Your task to perform on an android device: Check the weather Image 0: 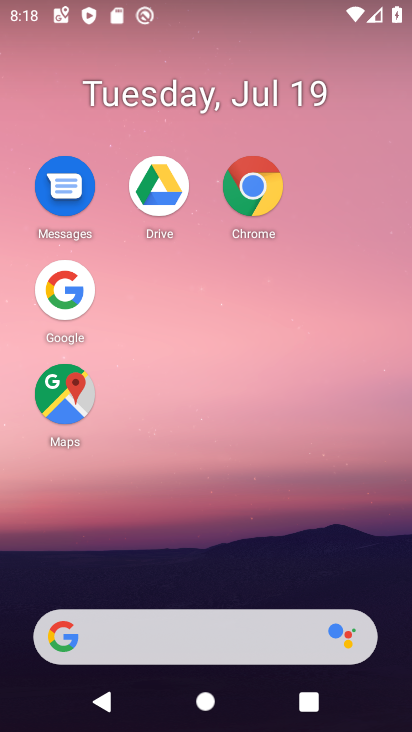
Step 0: drag from (216, 556) to (188, 73)
Your task to perform on an android device: Check the weather Image 1: 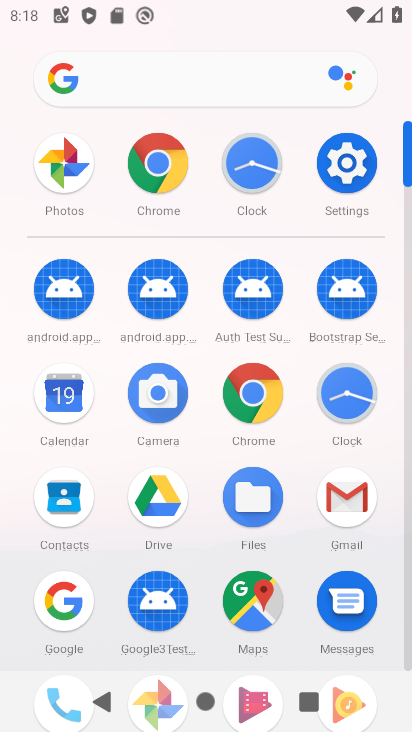
Step 1: click (62, 607)
Your task to perform on an android device: Check the weather Image 2: 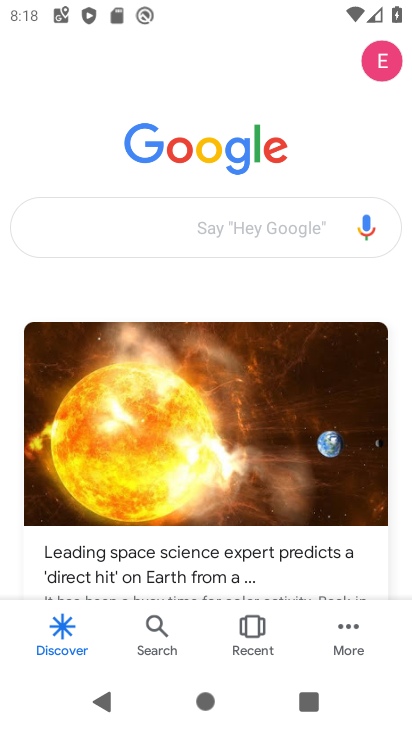
Step 2: click (151, 218)
Your task to perform on an android device: Check the weather Image 3: 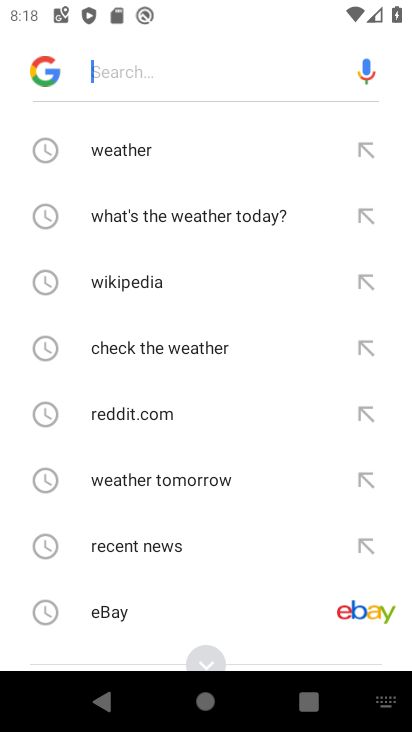
Step 3: click (109, 156)
Your task to perform on an android device: Check the weather Image 4: 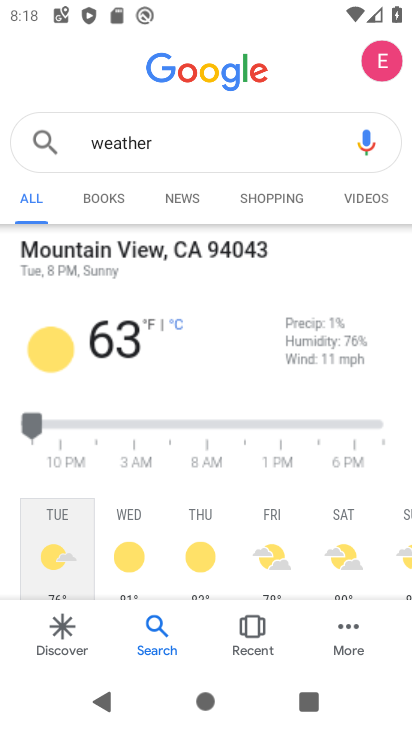
Step 4: task complete